Your task to perform on an android device: turn on wifi Image 0: 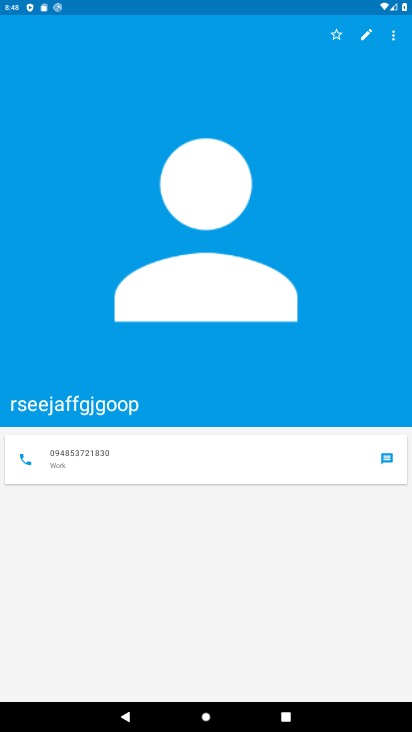
Step 0: press home button
Your task to perform on an android device: turn on wifi Image 1: 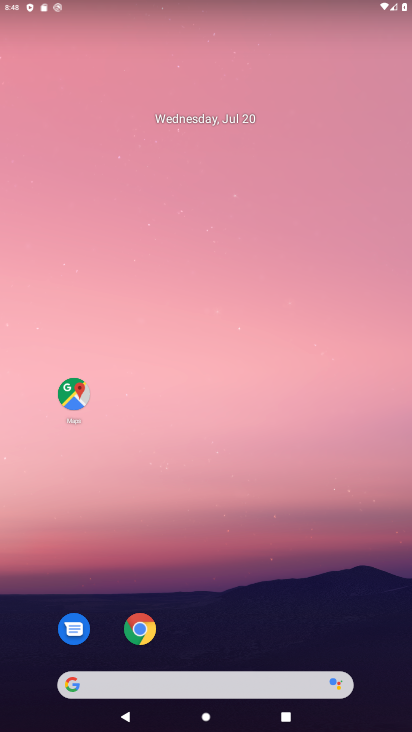
Step 1: drag from (384, 673) to (314, 111)
Your task to perform on an android device: turn on wifi Image 2: 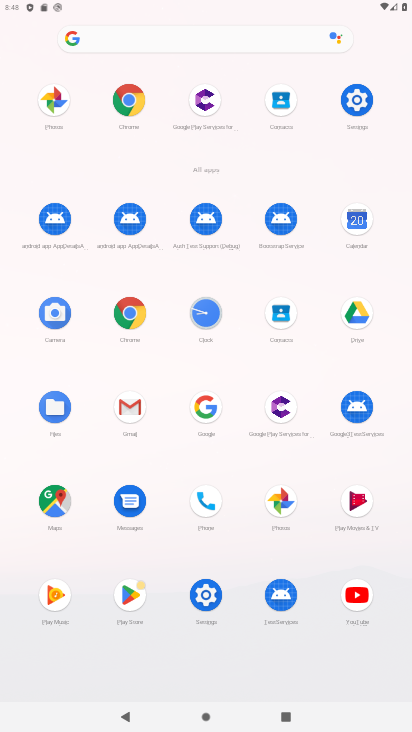
Step 2: click (204, 595)
Your task to perform on an android device: turn on wifi Image 3: 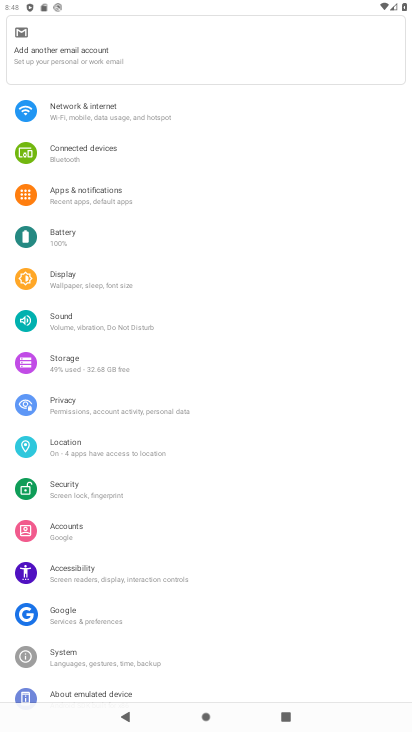
Step 3: click (57, 101)
Your task to perform on an android device: turn on wifi Image 4: 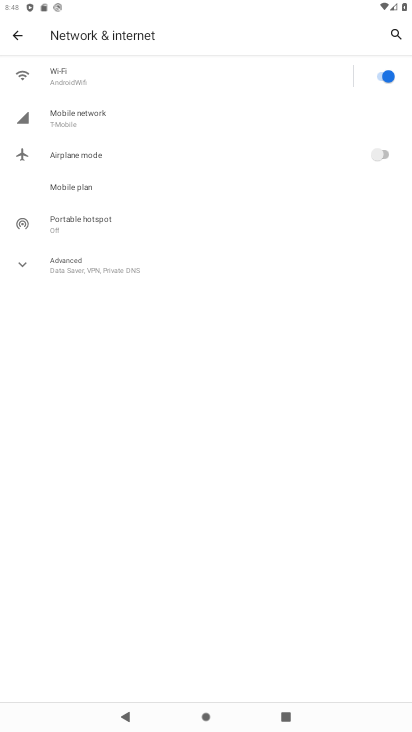
Step 4: task complete